Your task to perform on an android device: Go to Google maps Image 0: 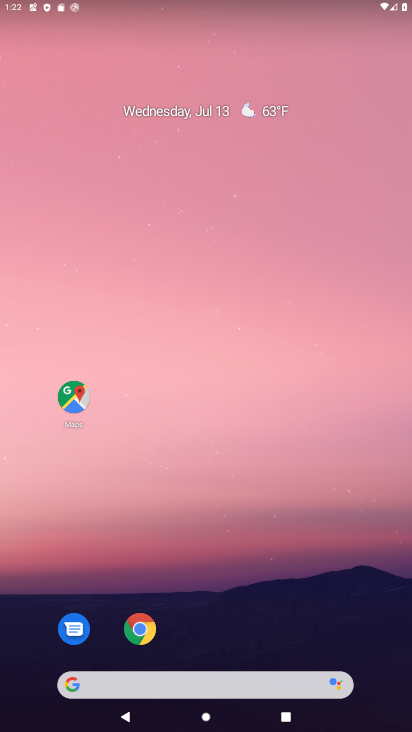
Step 0: drag from (180, 638) to (216, 44)
Your task to perform on an android device: Go to Google maps Image 1: 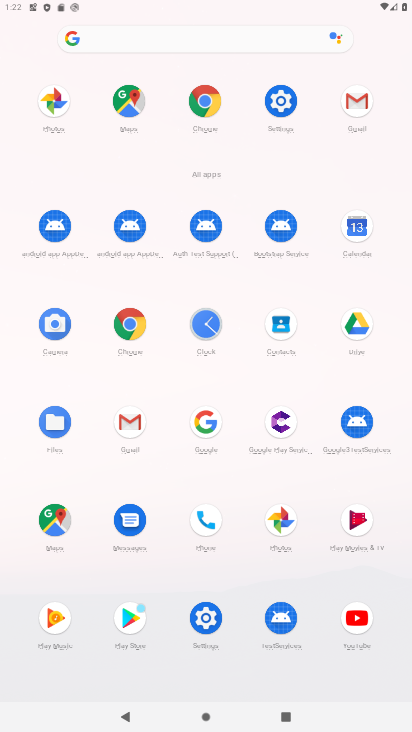
Step 1: click (48, 516)
Your task to perform on an android device: Go to Google maps Image 2: 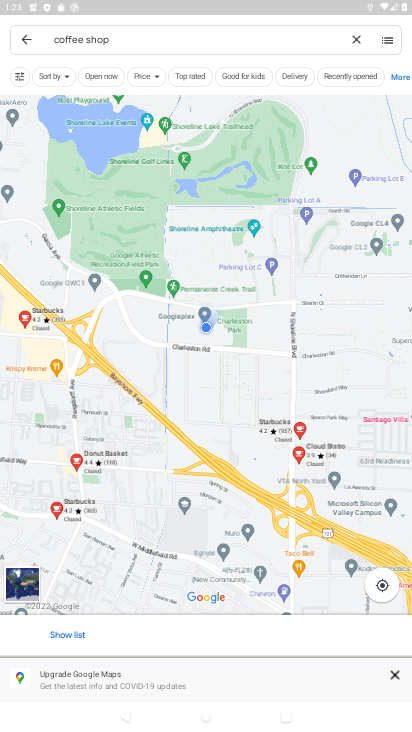
Step 2: task complete